Your task to perform on an android device: turn on showing notifications on the lock screen Image 0: 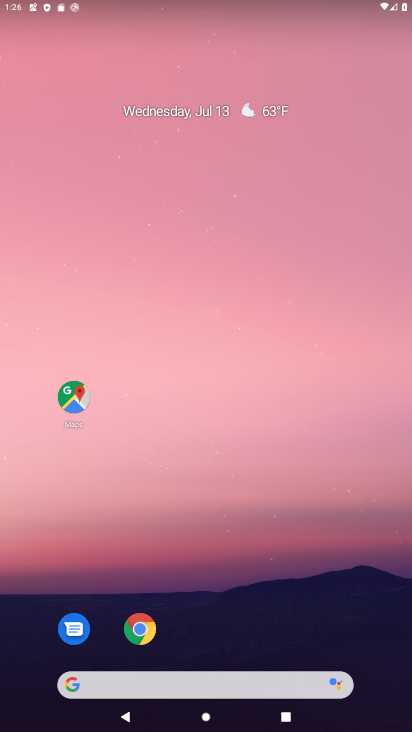
Step 0: drag from (177, 564) to (197, 163)
Your task to perform on an android device: turn on showing notifications on the lock screen Image 1: 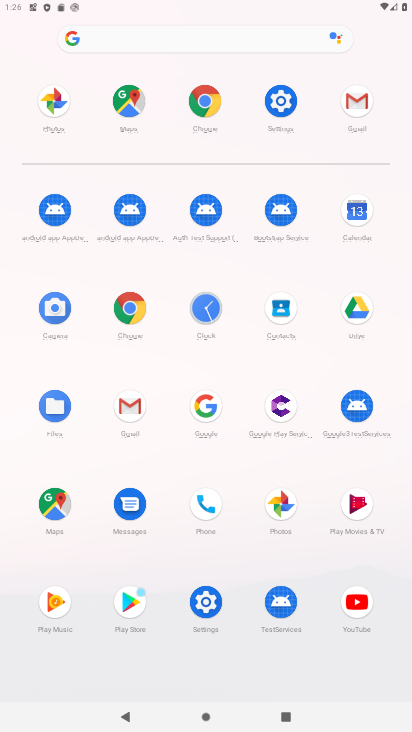
Step 1: click (201, 604)
Your task to perform on an android device: turn on showing notifications on the lock screen Image 2: 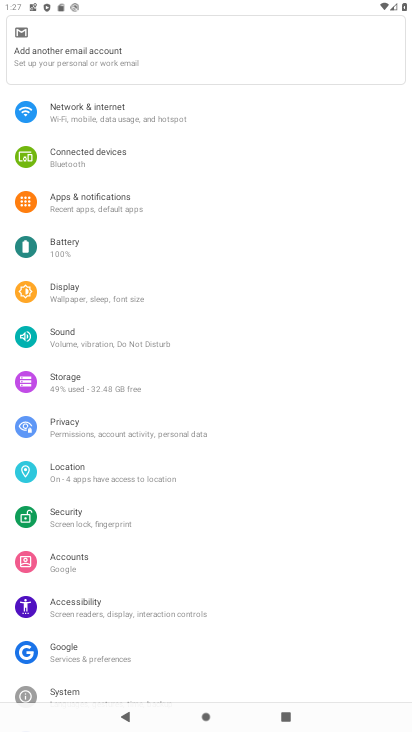
Step 2: click (133, 208)
Your task to perform on an android device: turn on showing notifications on the lock screen Image 3: 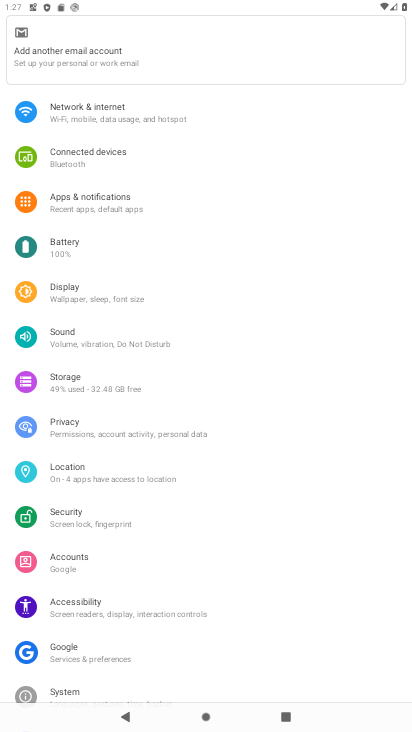
Step 3: click (133, 208)
Your task to perform on an android device: turn on showing notifications on the lock screen Image 4: 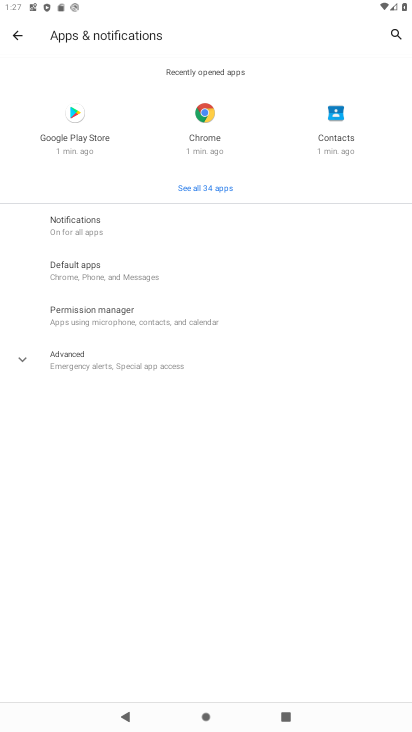
Step 4: click (97, 229)
Your task to perform on an android device: turn on showing notifications on the lock screen Image 5: 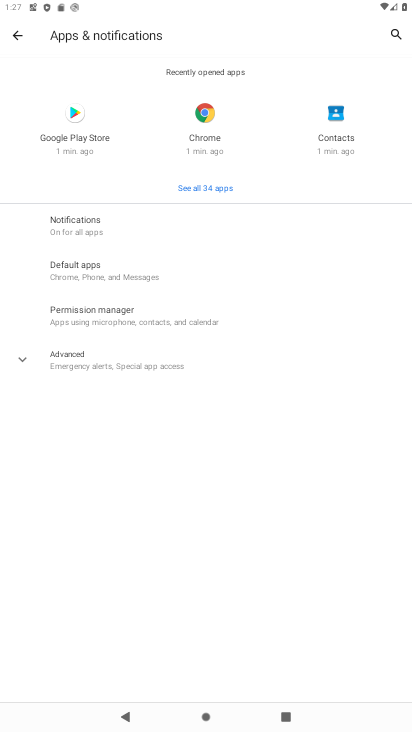
Step 5: click (97, 229)
Your task to perform on an android device: turn on showing notifications on the lock screen Image 6: 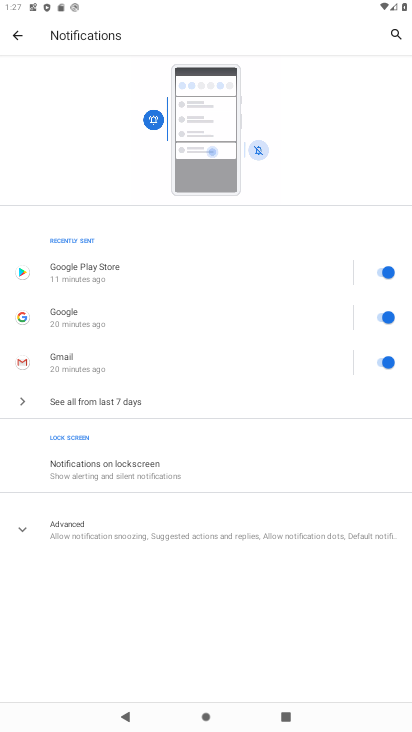
Step 6: click (108, 457)
Your task to perform on an android device: turn on showing notifications on the lock screen Image 7: 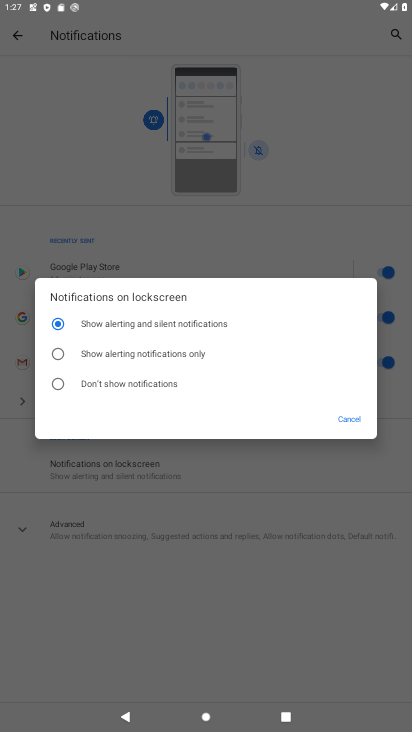
Step 7: click (133, 468)
Your task to perform on an android device: turn on showing notifications on the lock screen Image 8: 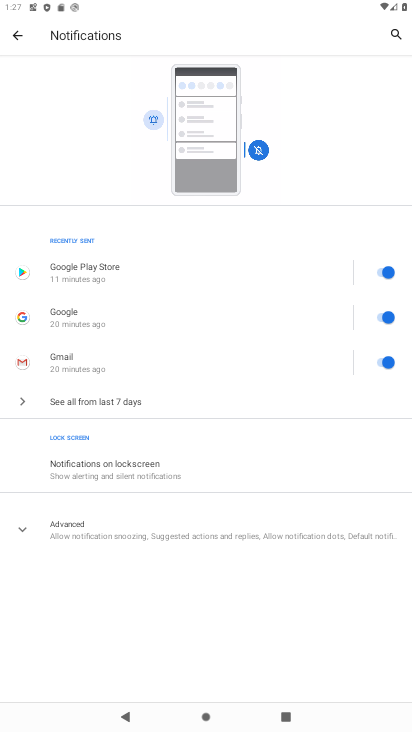
Step 8: click (102, 477)
Your task to perform on an android device: turn on showing notifications on the lock screen Image 9: 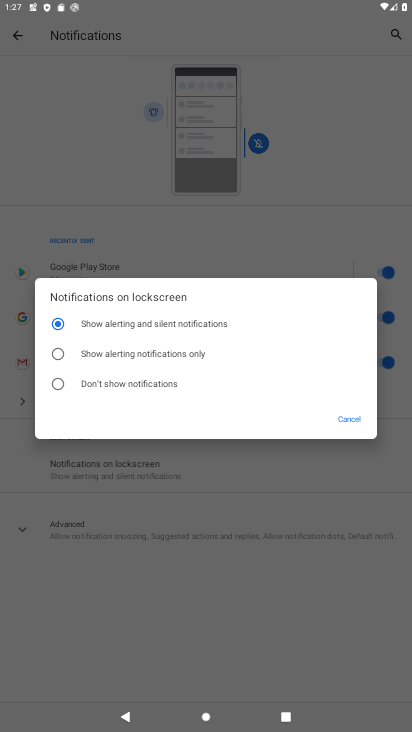
Step 9: click (76, 355)
Your task to perform on an android device: turn on showing notifications on the lock screen Image 10: 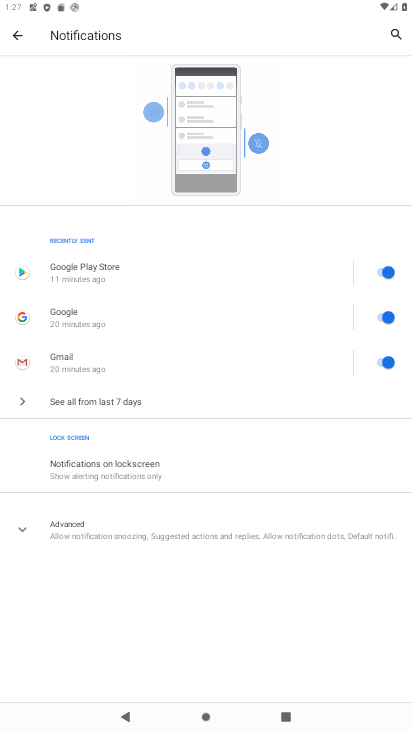
Step 10: task complete